Your task to perform on an android device: change the clock display to analog Image 0: 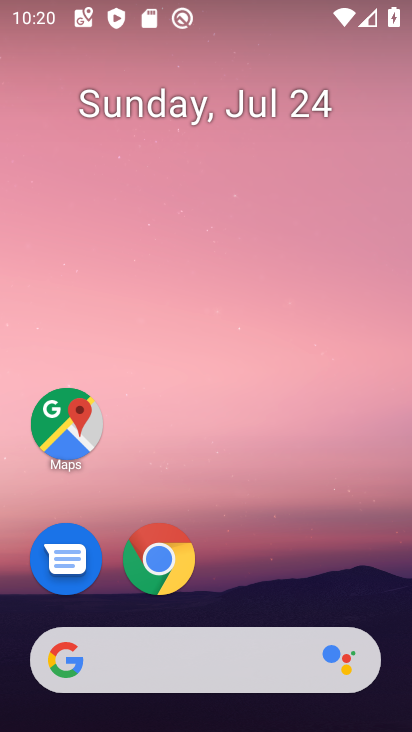
Step 0: drag from (251, 534) to (315, 10)
Your task to perform on an android device: change the clock display to analog Image 1: 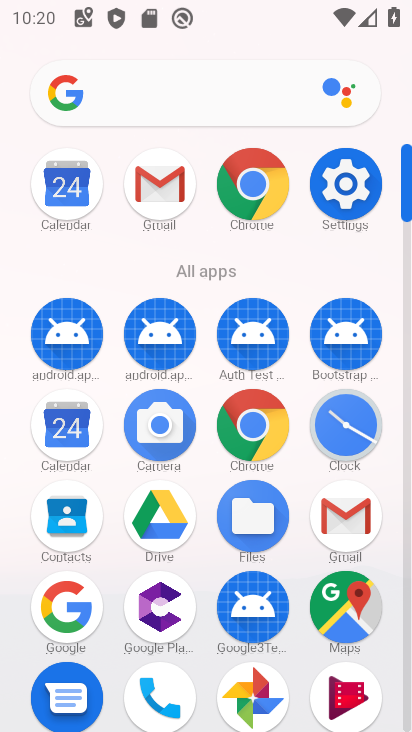
Step 1: click (343, 426)
Your task to perform on an android device: change the clock display to analog Image 2: 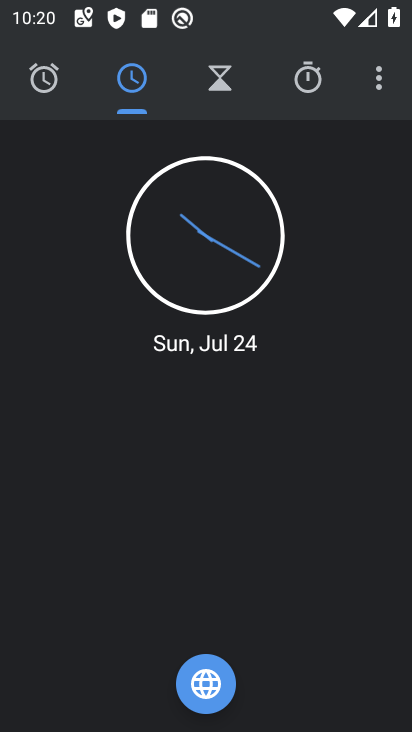
Step 2: click (382, 81)
Your task to perform on an android device: change the clock display to analog Image 3: 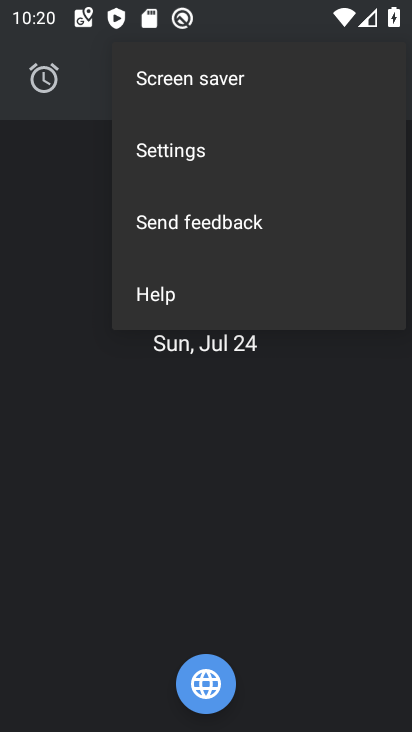
Step 3: click (236, 138)
Your task to perform on an android device: change the clock display to analog Image 4: 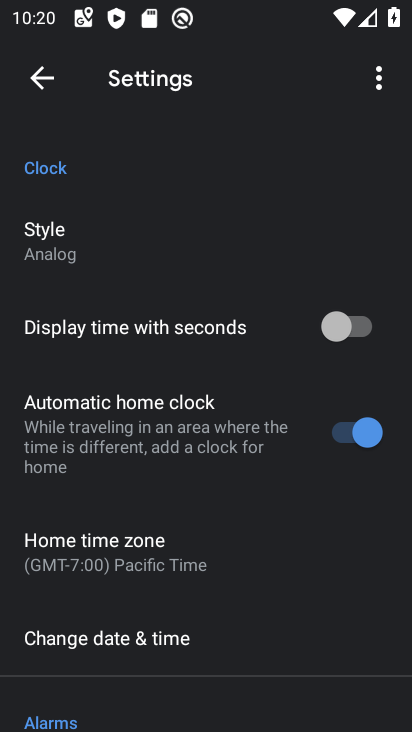
Step 4: task complete